Your task to perform on an android device: turn notification dots off Image 0: 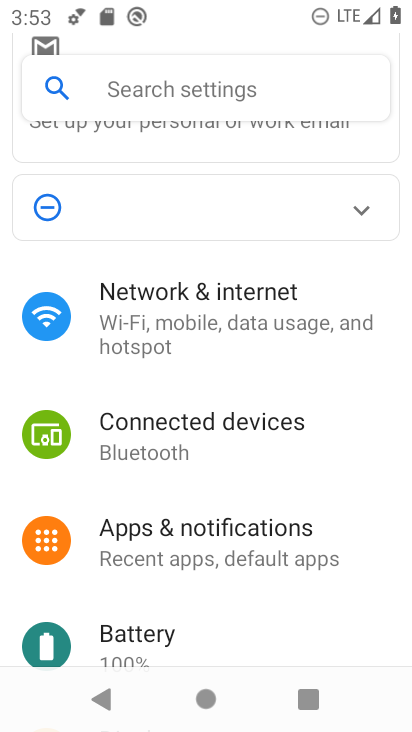
Step 0: click (252, 558)
Your task to perform on an android device: turn notification dots off Image 1: 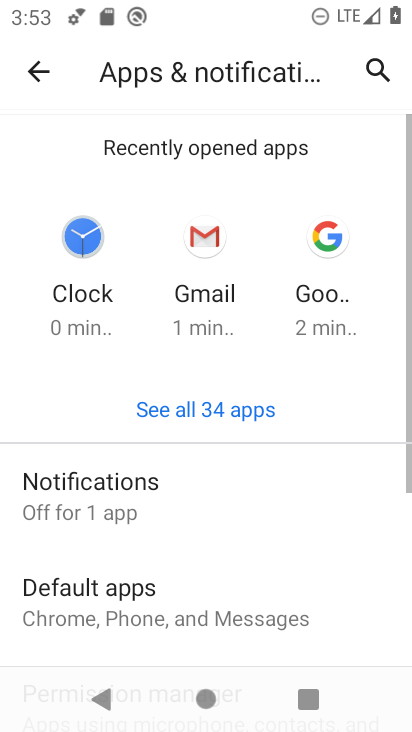
Step 1: drag from (260, 634) to (293, 100)
Your task to perform on an android device: turn notification dots off Image 2: 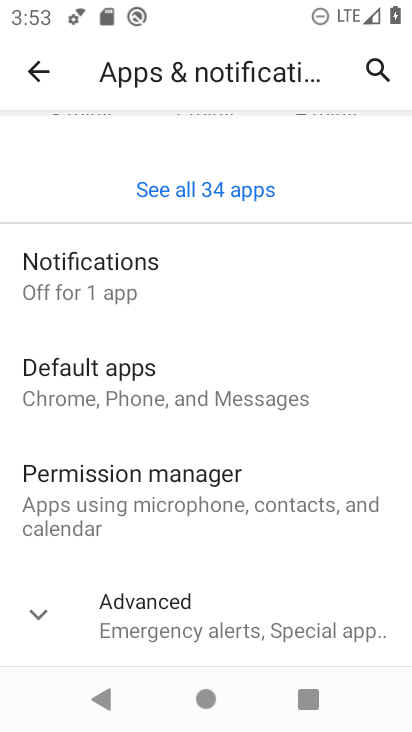
Step 2: click (233, 632)
Your task to perform on an android device: turn notification dots off Image 3: 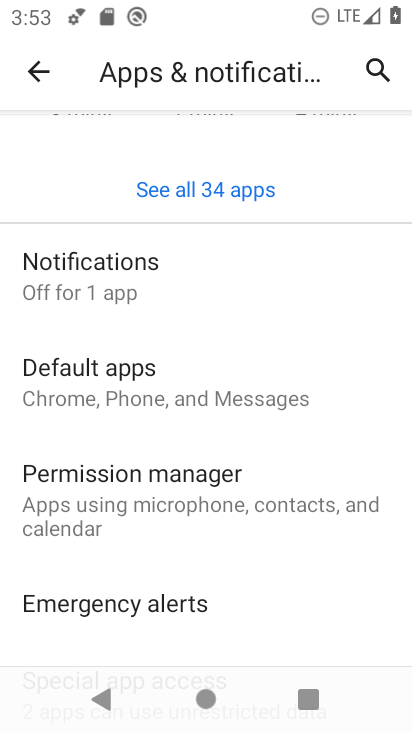
Step 3: click (196, 260)
Your task to perform on an android device: turn notification dots off Image 4: 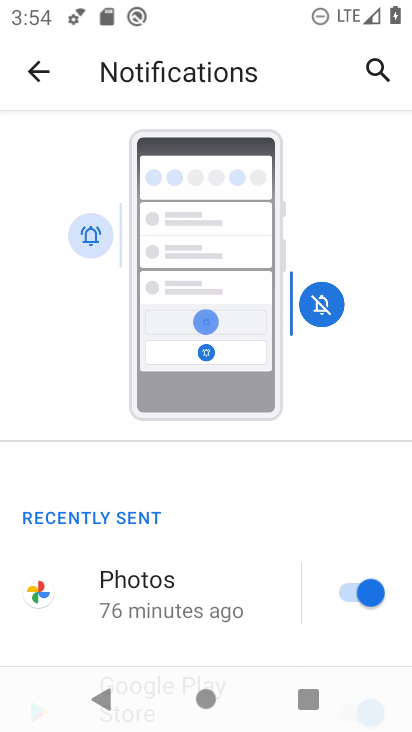
Step 4: drag from (258, 560) to (250, 39)
Your task to perform on an android device: turn notification dots off Image 5: 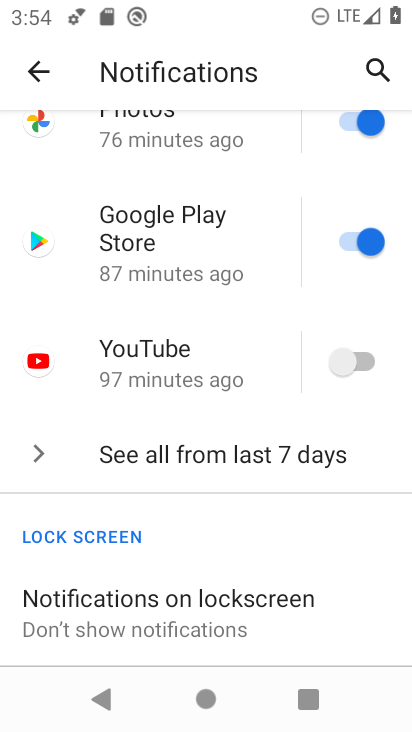
Step 5: drag from (253, 612) to (251, 243)
Your task to perform on an android device: turn notification dots off Image 6: 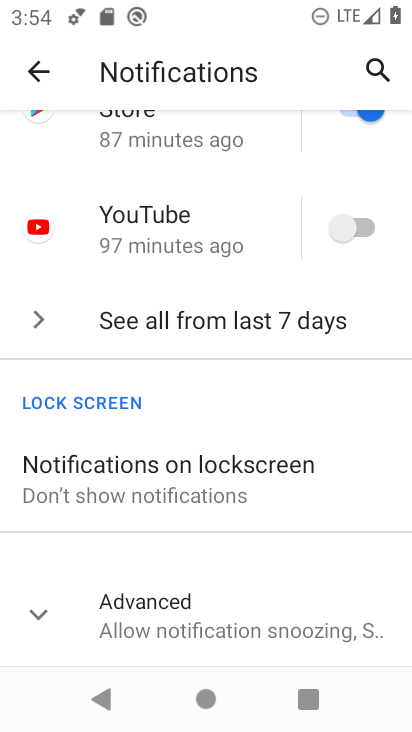
Step 6: click (201, 490)
Your task to perform on an android device: turn notification dots off Image 7: 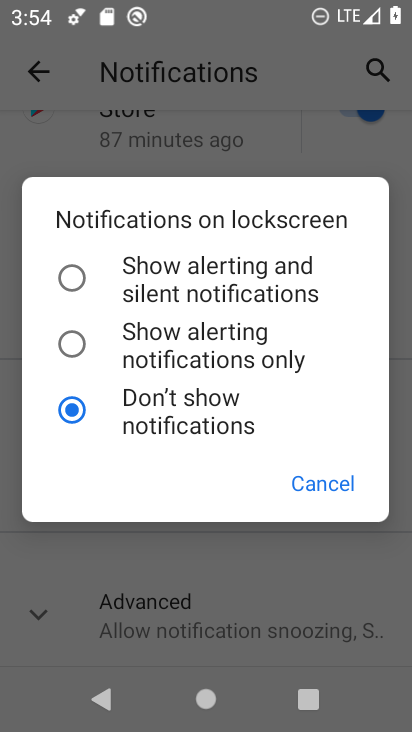
Step 7: click (325, 483)
Your task to perform on an android device: turn notification dots off Image 8: 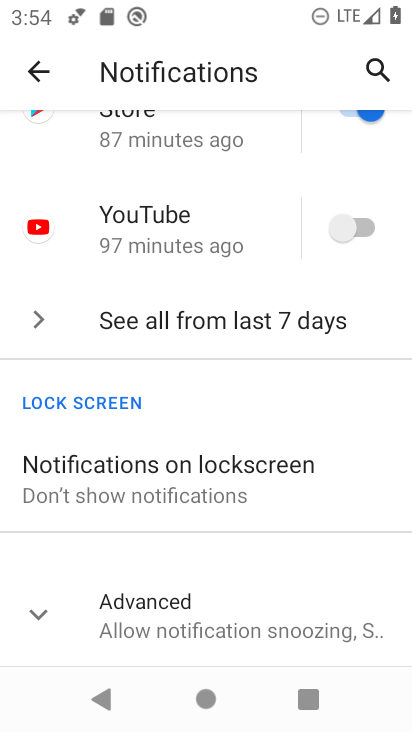
Step 8: click (310, 635)
Your task to perform on an android device: turn notification dots off Image 9: 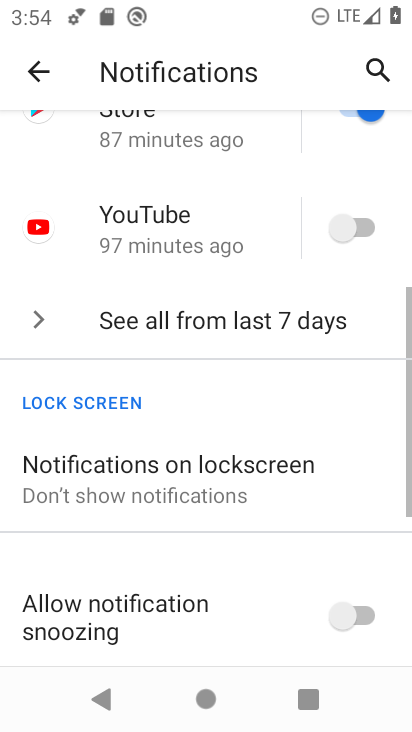
Step 9: drag from (310, 635) to (251, 107)
Your task to perform on an android device: turn notification dots off Image 10: 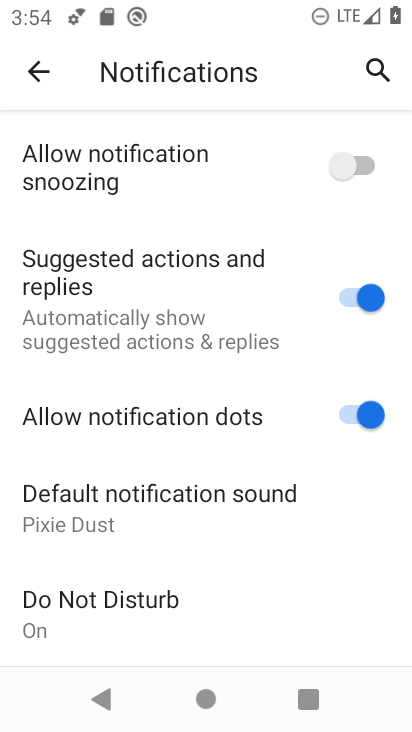
Step 10: click (345, 408)
Your task to perform on an android device: turn notification dots off Image 11: 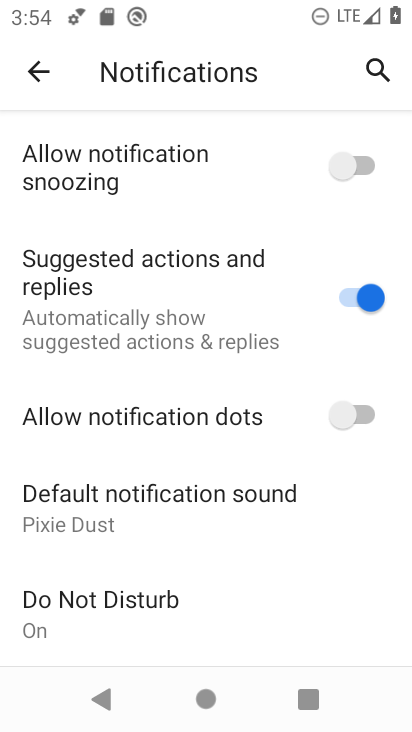
Step 11: task complete